Your task to perform on an android device: toggle location history Image 0: 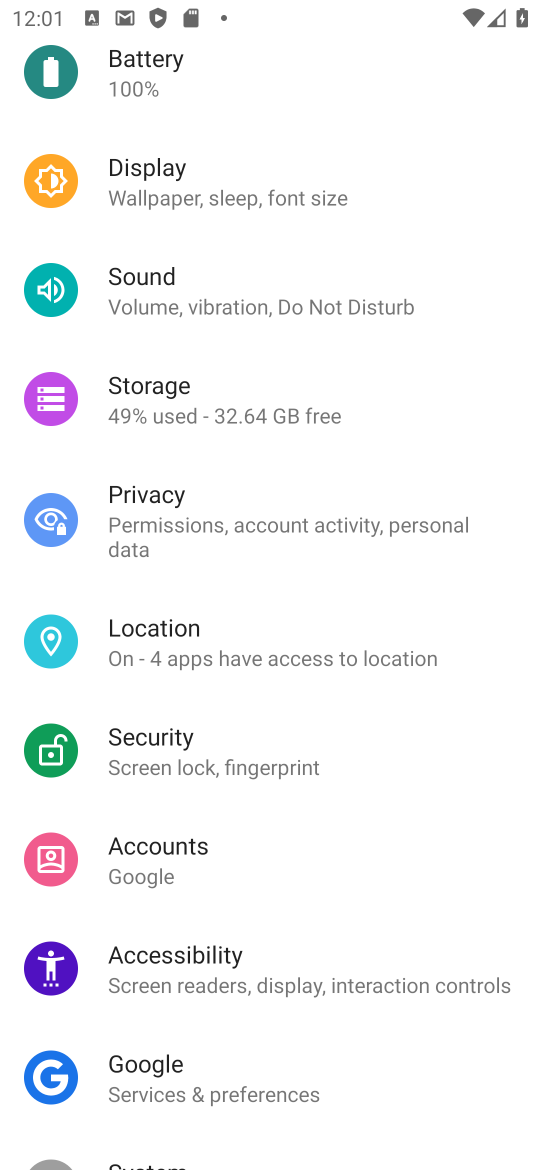
Step 0: click (378, 647)
Your task to perform on an android device: toggle location history Image 1: 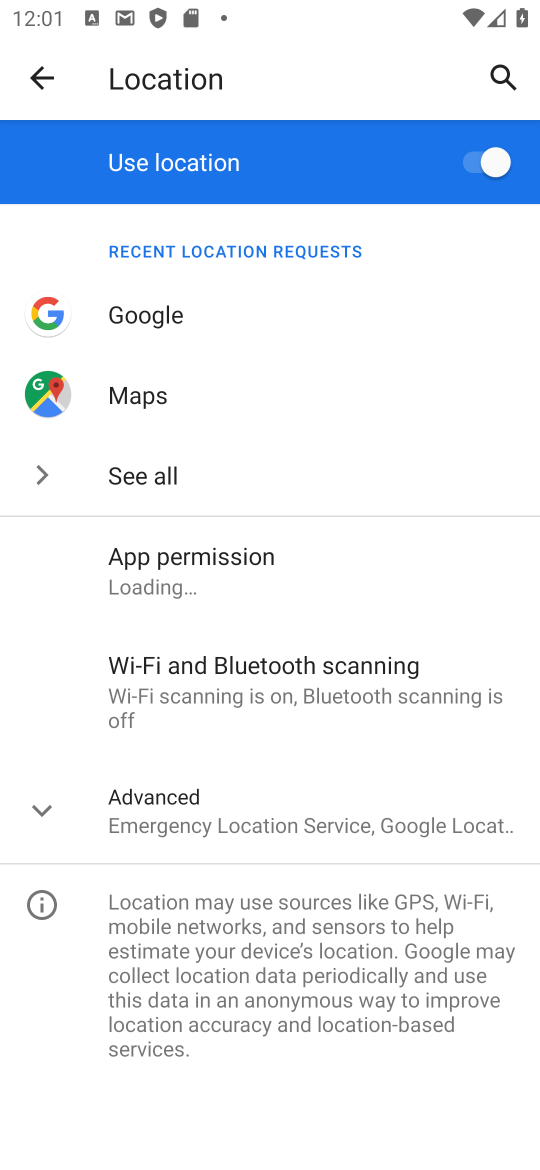
Step 1: click (46, 803)
Your task to perform on an android device: toggle location history Image 2: 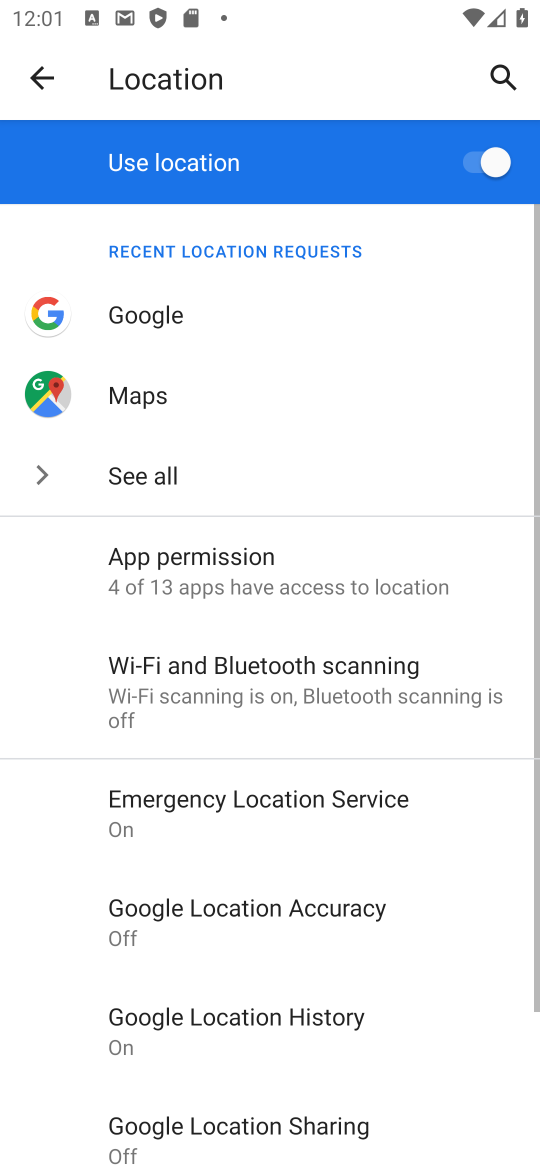
Step 2: click (214, 1017)
Your task to perform on an android device: toggle location history Image 3: 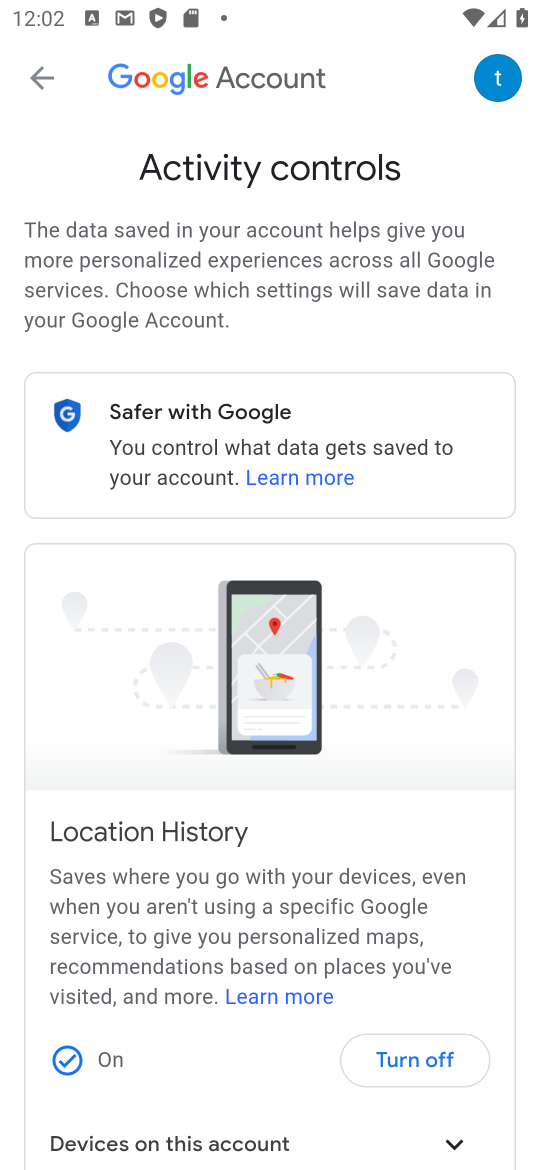
Step 3: click (427, 1045)
Your task to perform on an android device: toggle location history Image 4: 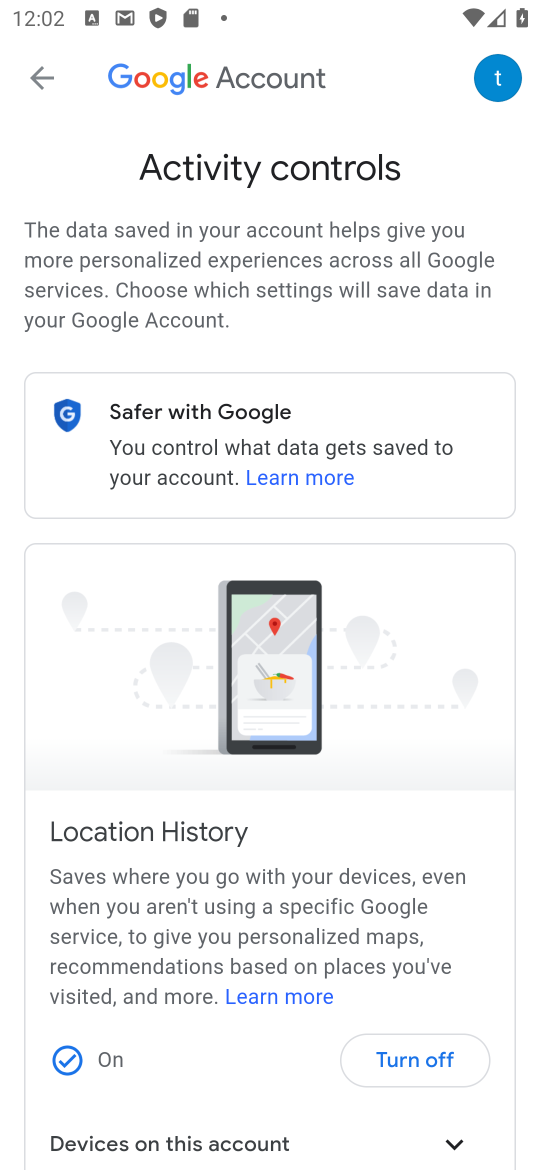
Step 4: click (427, 1045)
Your task to perform on an android device: toggle location history Image 5: 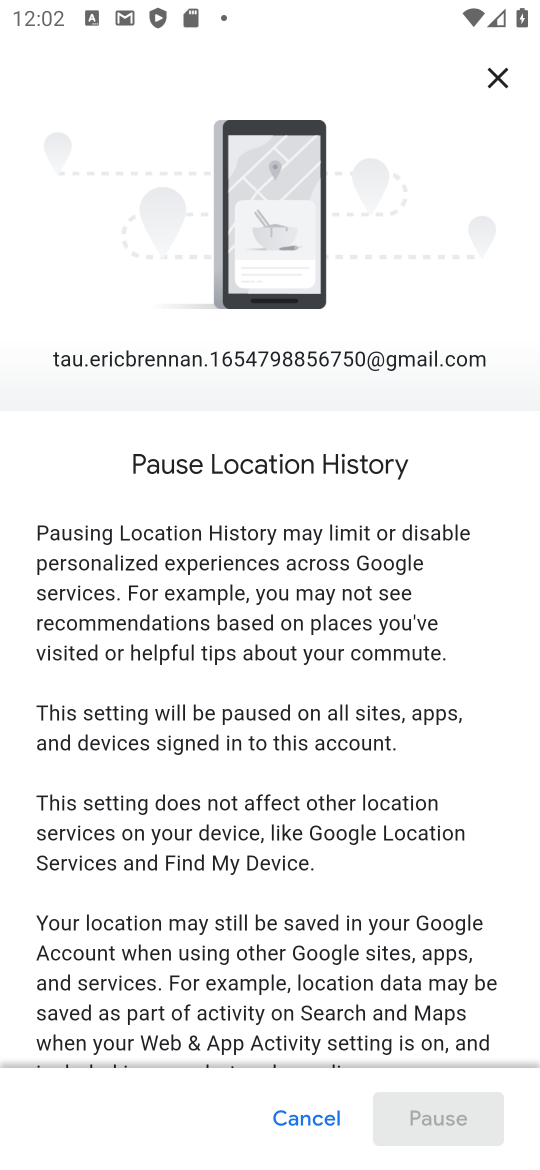
Step 5: drag from (318, 917) to (365, 171)
Your task to perform on an android device: toggle location history Image 6: 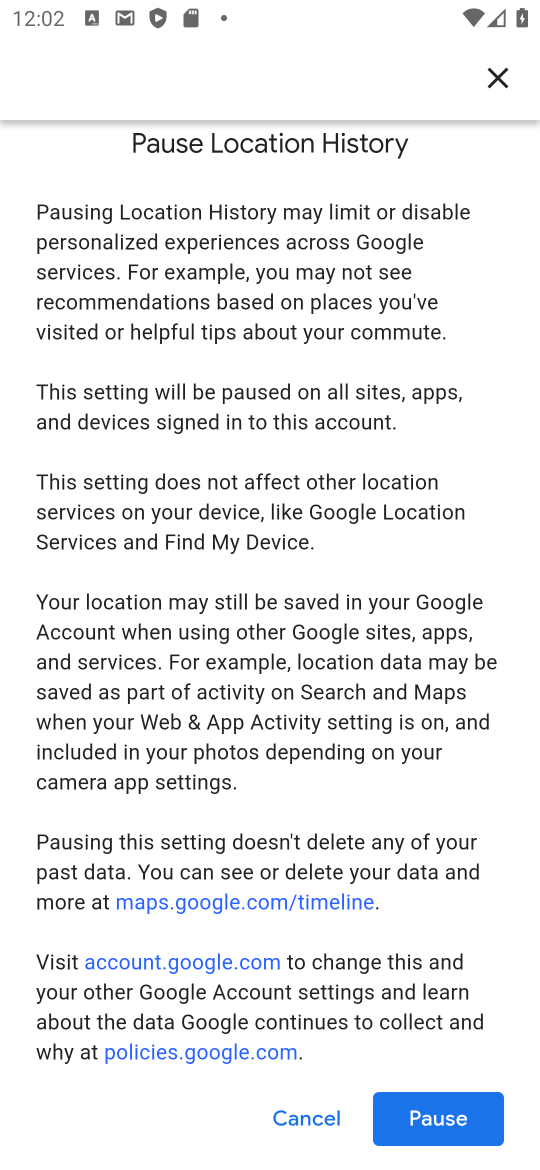
Step 6: click (459, 1129)
Your task to perform on an android device: toggle location history Image 7: 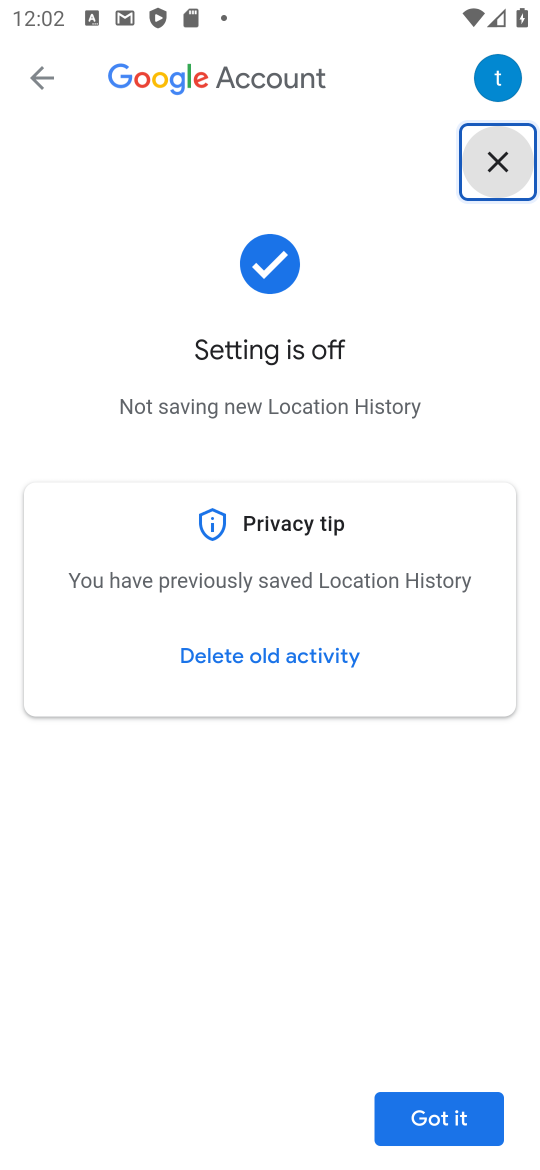
Step 7: click (444, 1119)
Your task to perform on an android device: toggle location history Image 8: 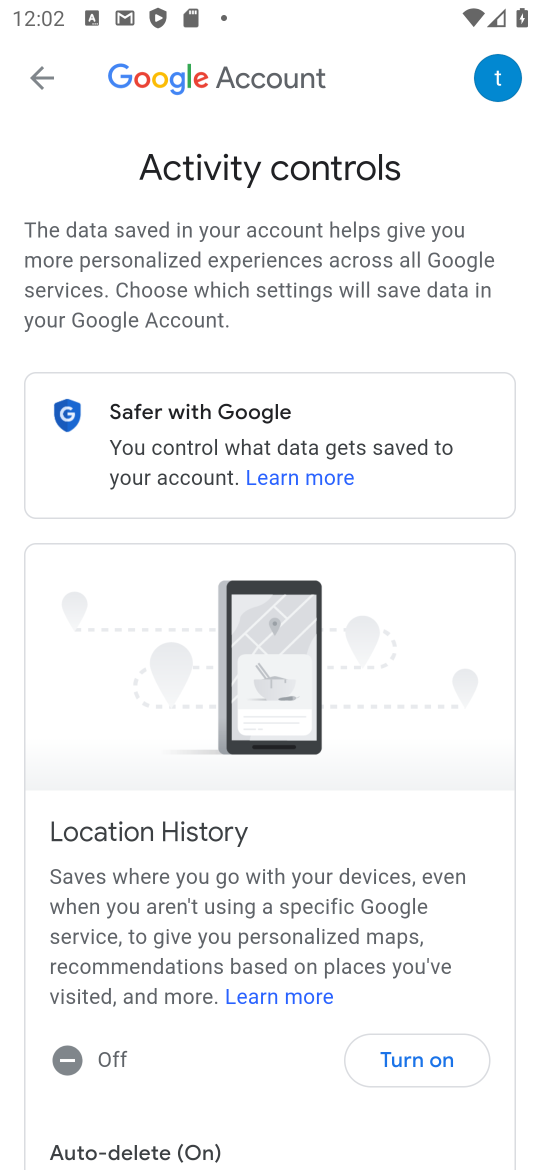
Step 8: task complete